Your task to perform on an android device: check google app version Image 0: 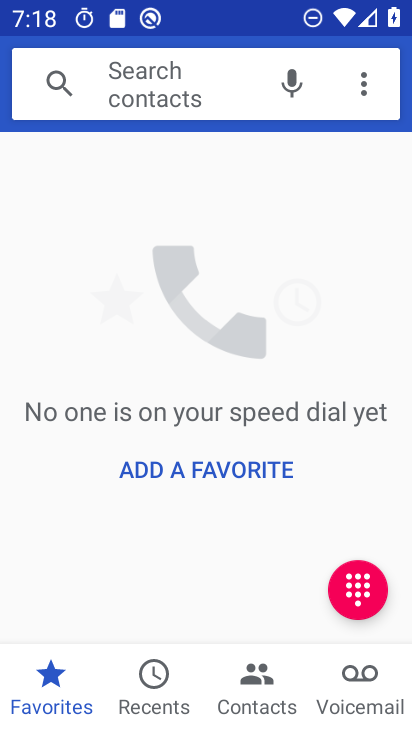
Step 0: press home button
Your task to perform on an android device: check google app version Image 1: 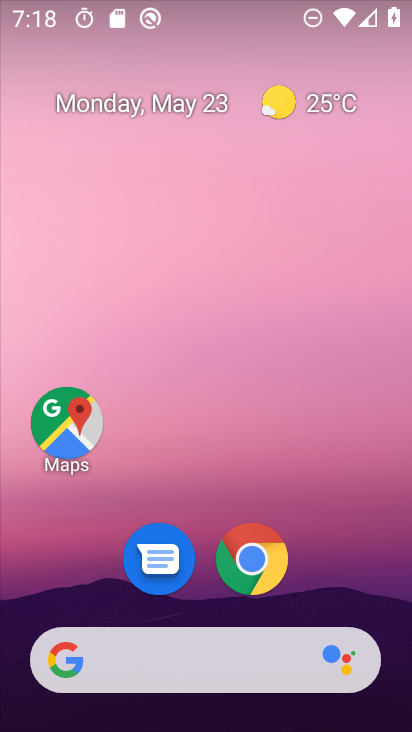
Step 1: drag from (405, 627) to (262, 14)
Your task to perform on an android device: check google app version Image 2: 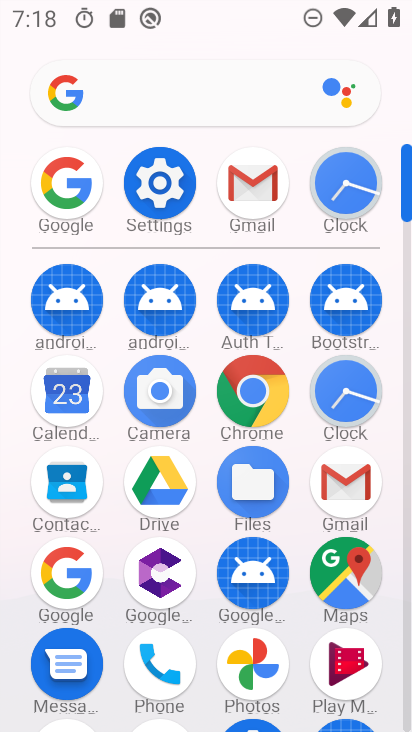
Step 2: click (97, 580)
Your task to perform on an android device: check google app version Image 3: 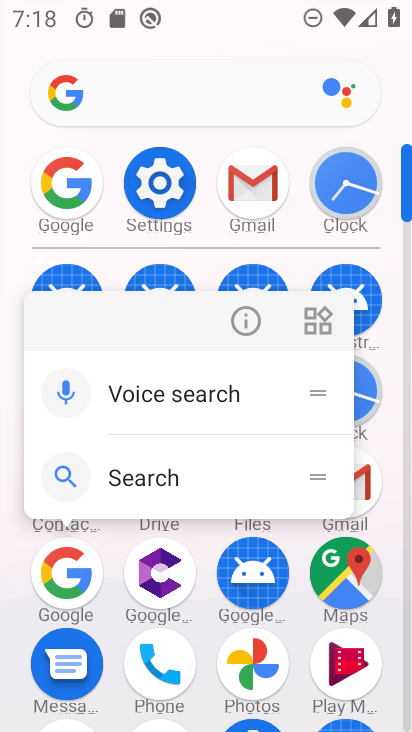
Step 3: click (228, 330)
Your task to perform on an android device: check google app version Image 4: 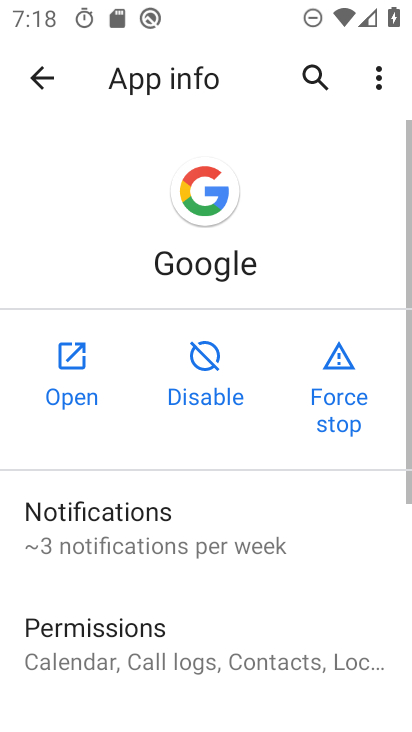
Step 4: drag from (169, 680) to (178, 24)
Your task to perform on an android device: check google app version Image 5: 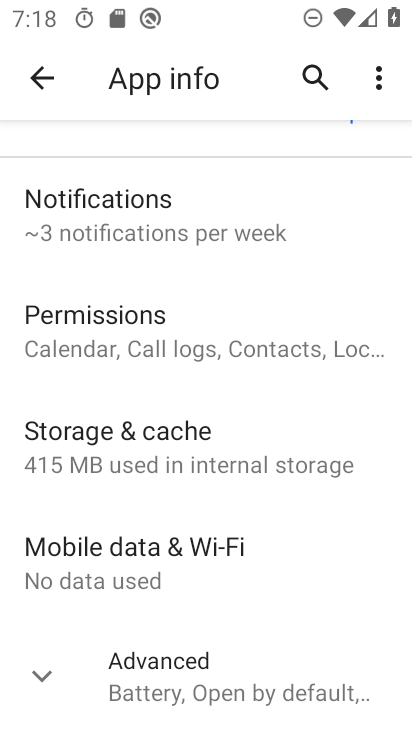
Step 5: click (121, 676)
Your task to perform on an android device: check google app version Image 6: 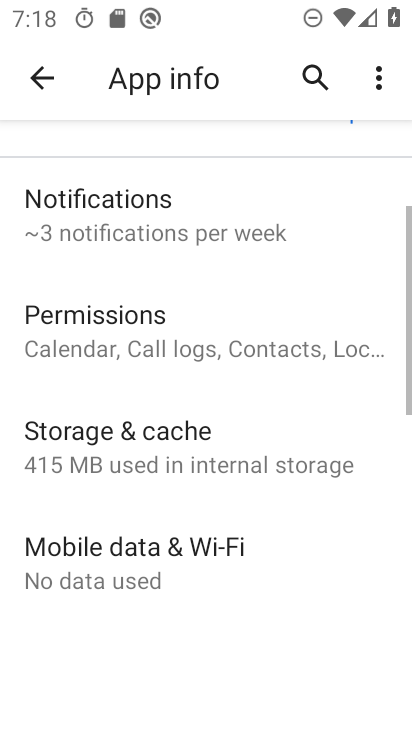
Step 6: task complete